Your task to perform on an android device: toggle javascript in the chrome app Image 0: 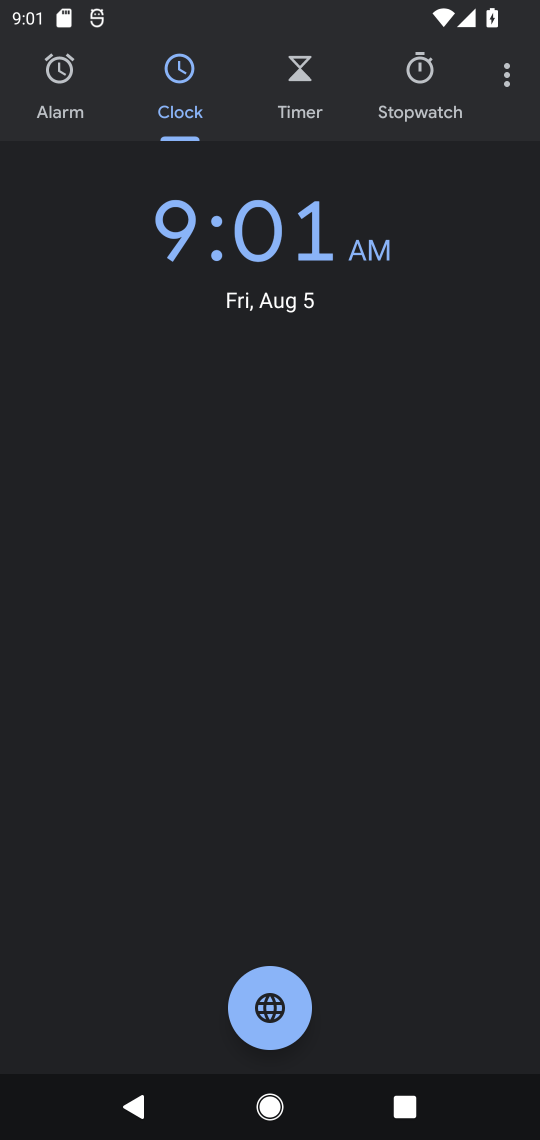
Step 0: press home button
Your task to perform on an android device: toggle javascript in the chrome app Image 1: 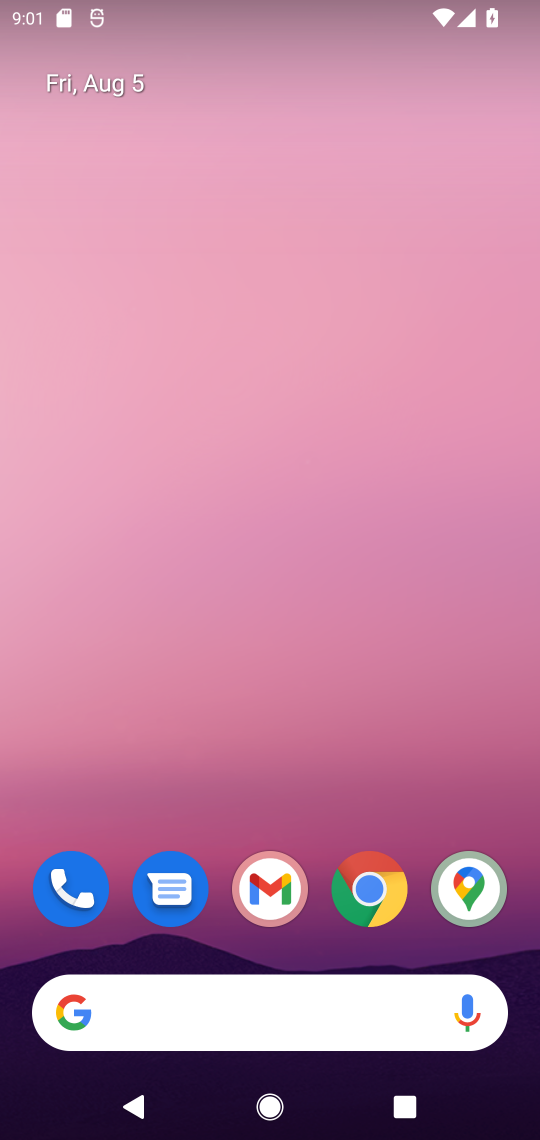
Step 1: drag from (133, 767) to (238, 176)
Your task to perform on an android device: toggle javascript in the chrome app Image 2: 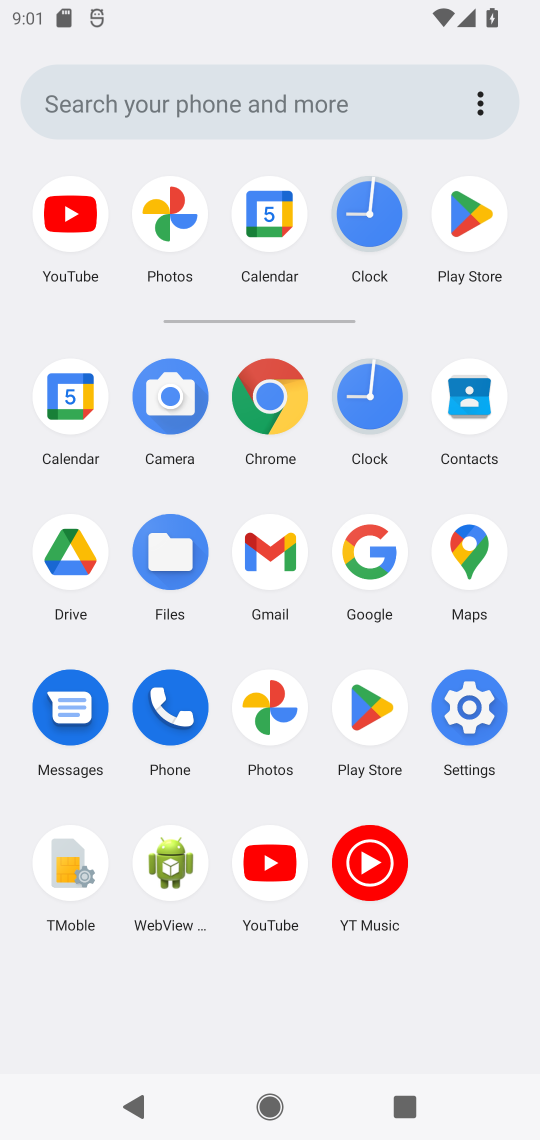
Step 2: click (255, 415)
Your task to perform on an android device: toggle javascript in the chrome app Image 3: 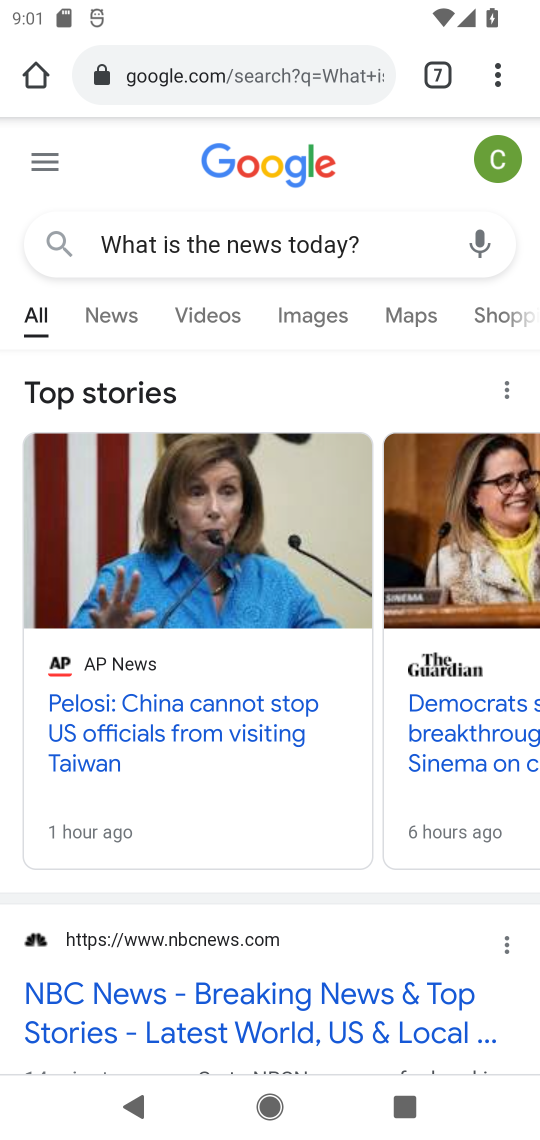
Step 3: click (508, 76)
Your task to perform on an android device: toggle javascript in the chrome app Image 4: 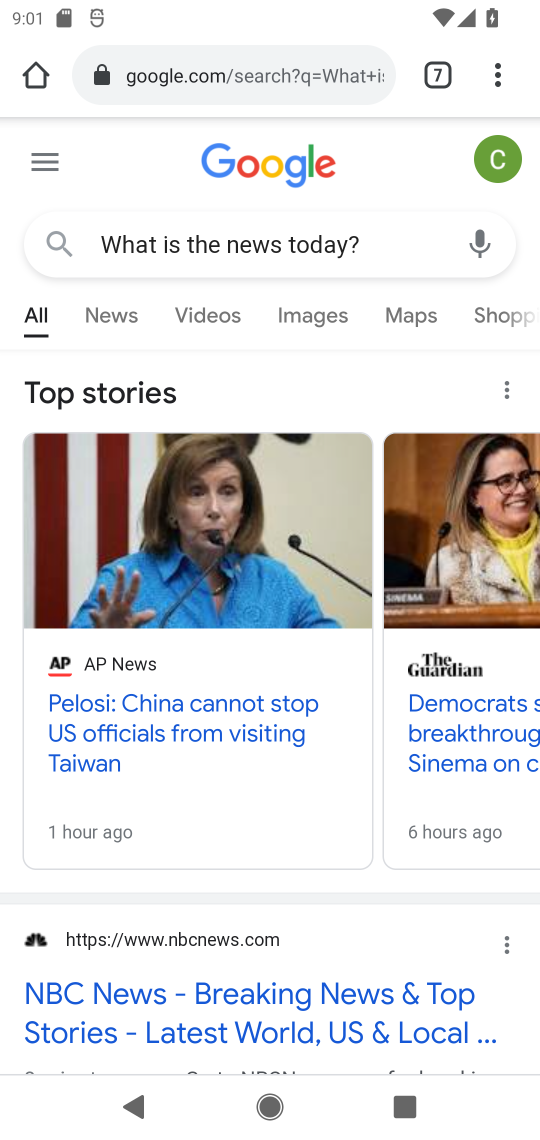
Step 4: click (489, 78)
Your task to perform on an android device: toggle javascript in the chrome app Image 5: 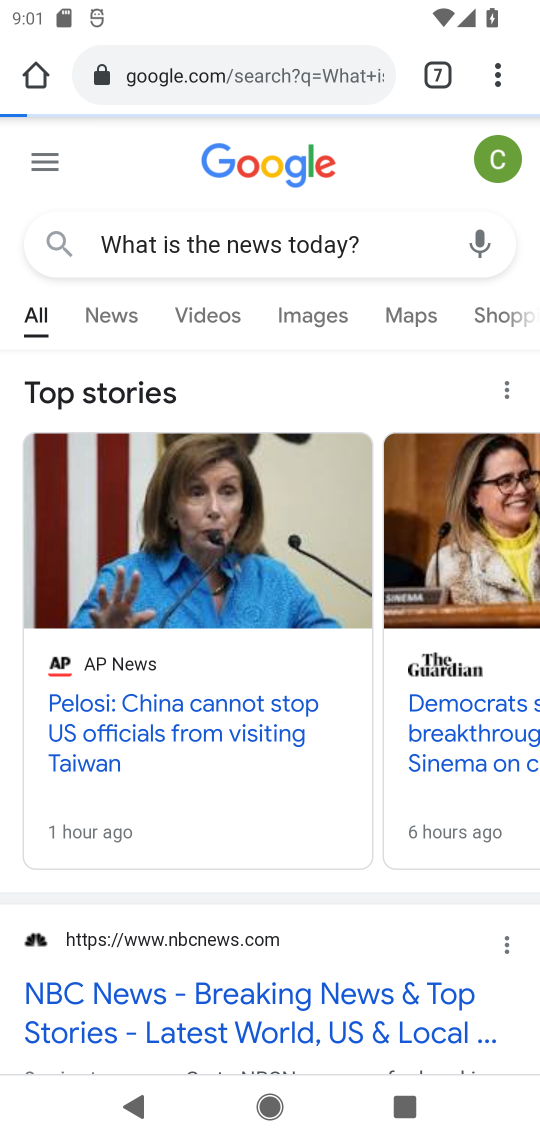
Step 5: click (489, 78)
Your task to perform on an android device: toggle javascript in the chrome app Image 6: 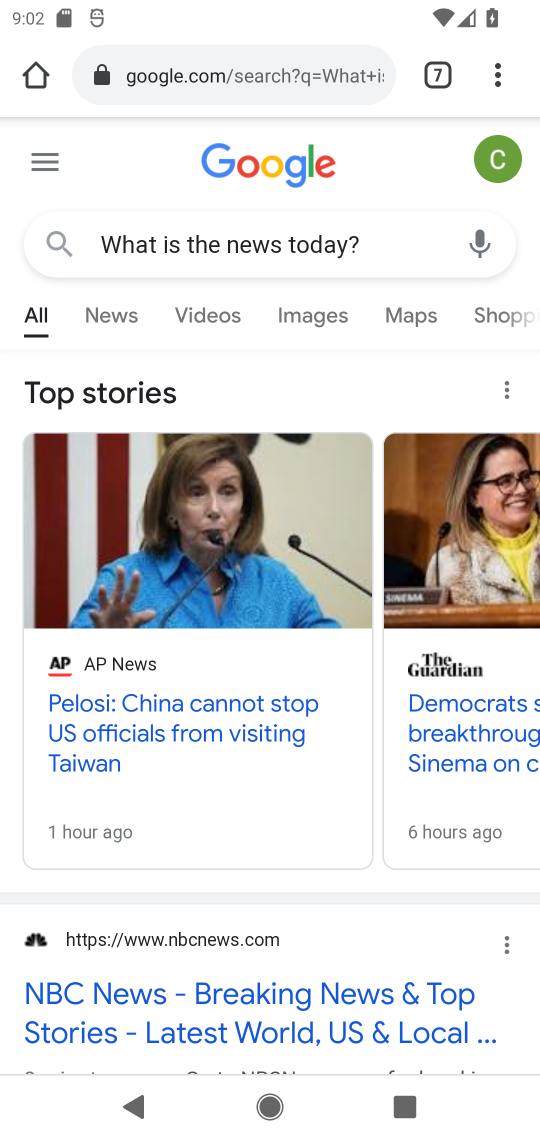
Step 6: click (500, 70)
Your task to perform on an android device: toggle javascript in the chrome app Image 7: 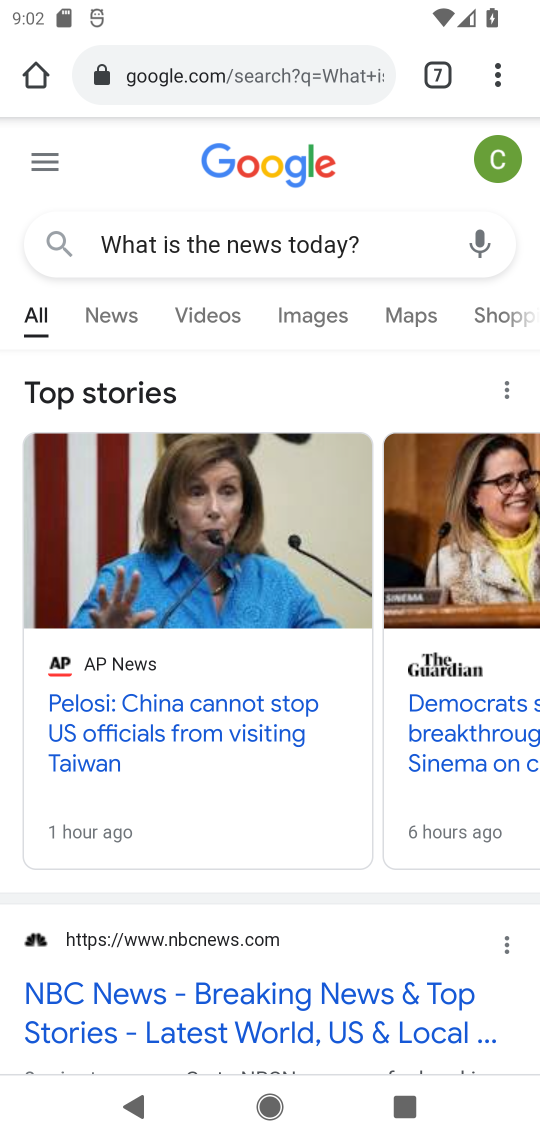
Step 7: click (500, 70)
Your task to perform on an android device: toggle javascript in the chrome app Image 8: 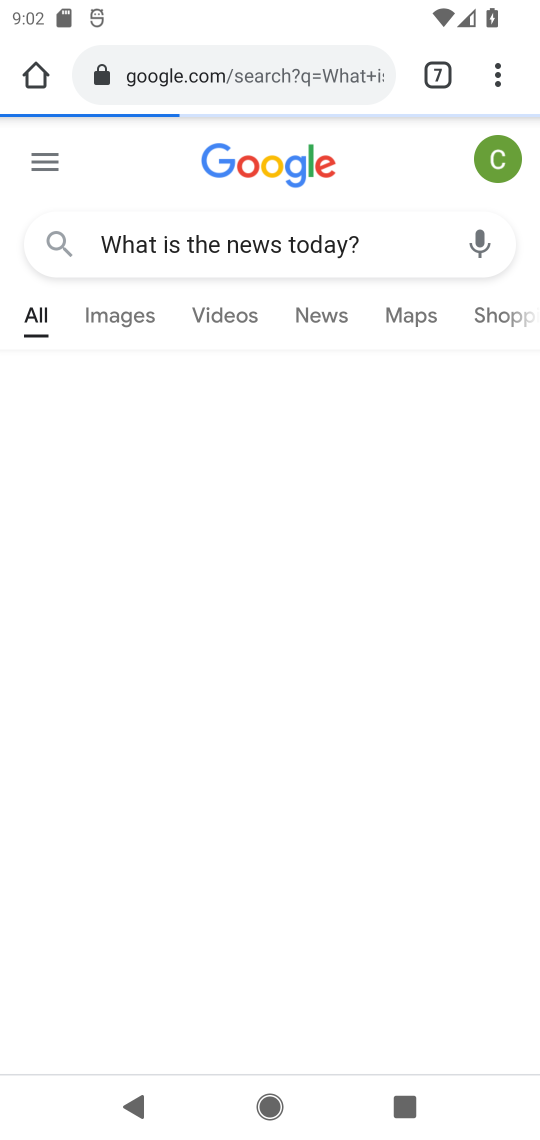
Step 8: click (500, 70)
Your task to perform on an android device: toggle javascript in the chrome app Image 9: 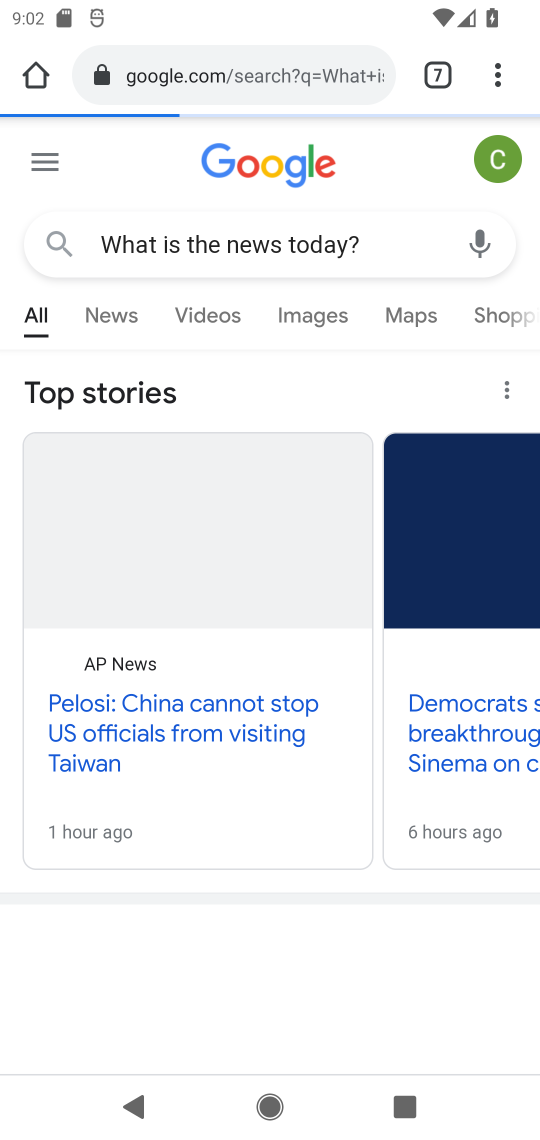
Step 9: click (487, 67)
Your task to perform on an android device: toggle javascript in the chrome app Image 10: 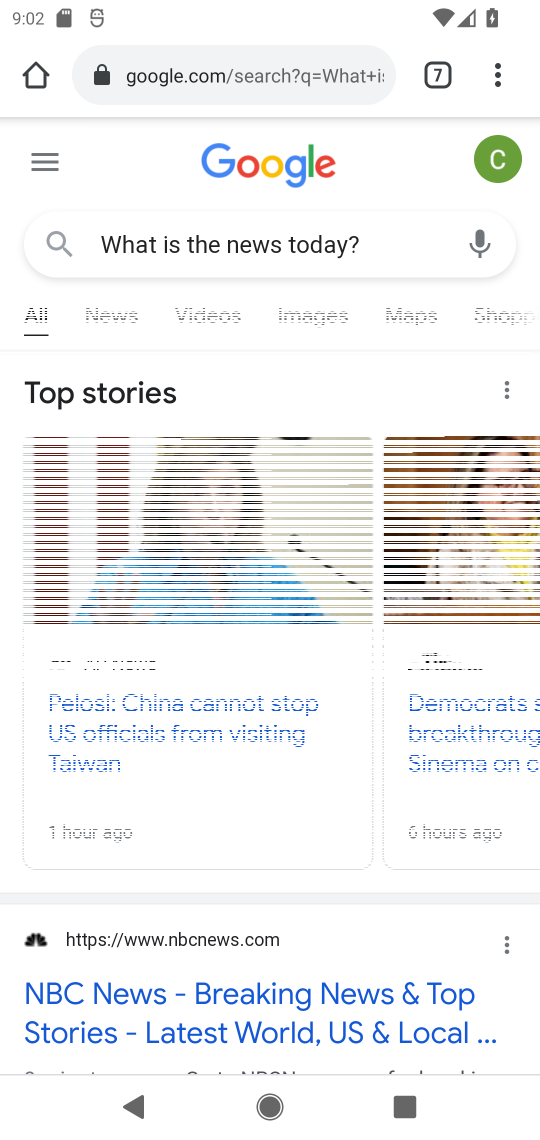
Step 10: click (487, 67)
Your task to perform on an android device: toggle javascript in the chrome app Image 11: 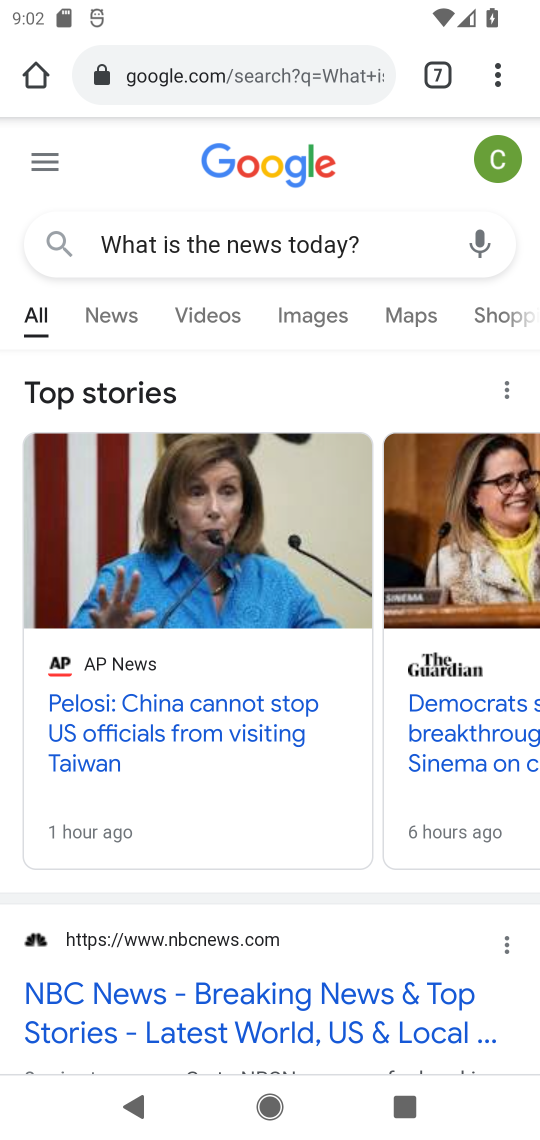
Step 11: click (496, 73)
Your task to perform on an android device: toggle javascript in the chrome app Image 12: 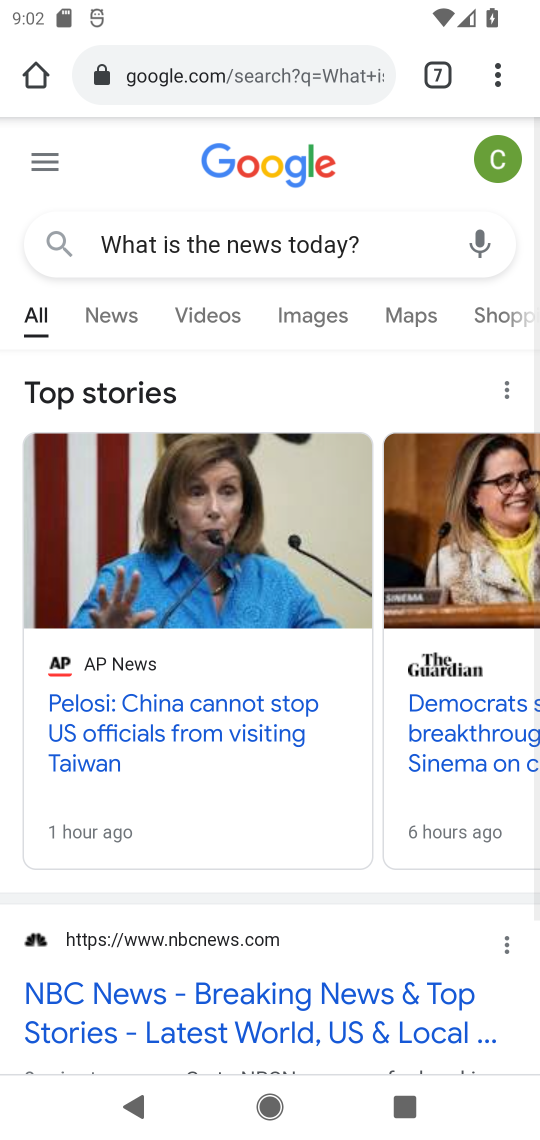
Step 12: click (502, 74)
Your task to perform on an android device: toggle javascript in the chrome app Image 13: 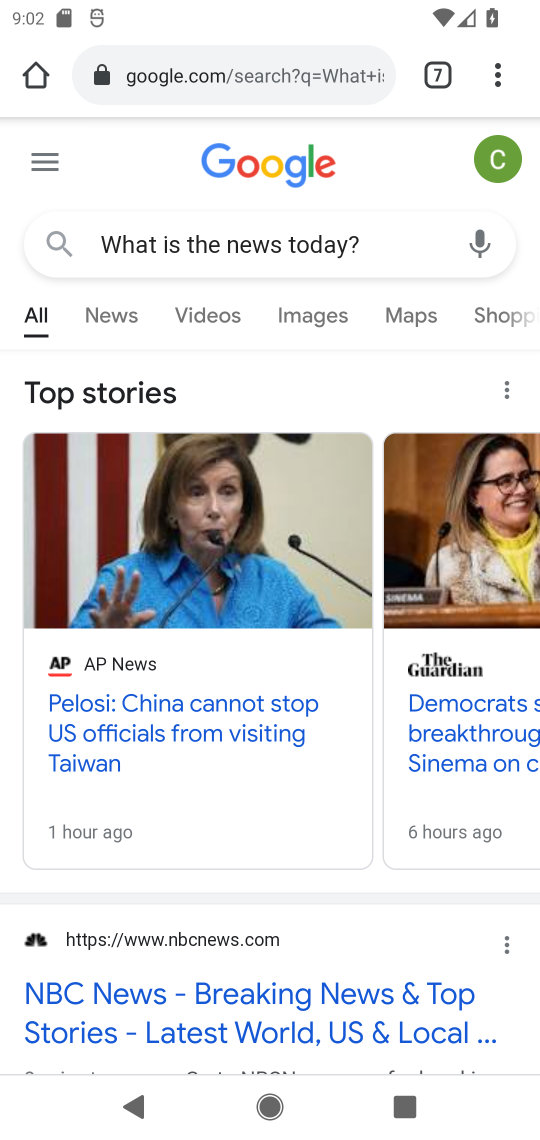
Step 13: click (520, 65)
Your task to perform on an android device: toggle javascript in the chrome app Image 14: 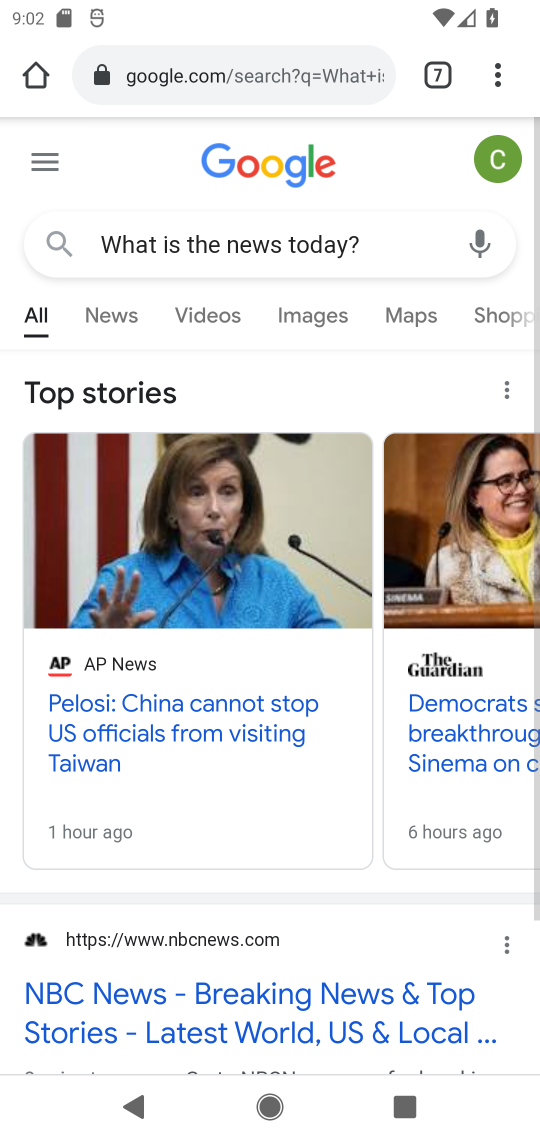
Step 14: click (520, 65)
Your task to perform on an android device: toggle javascript in the chrome app Image 15: 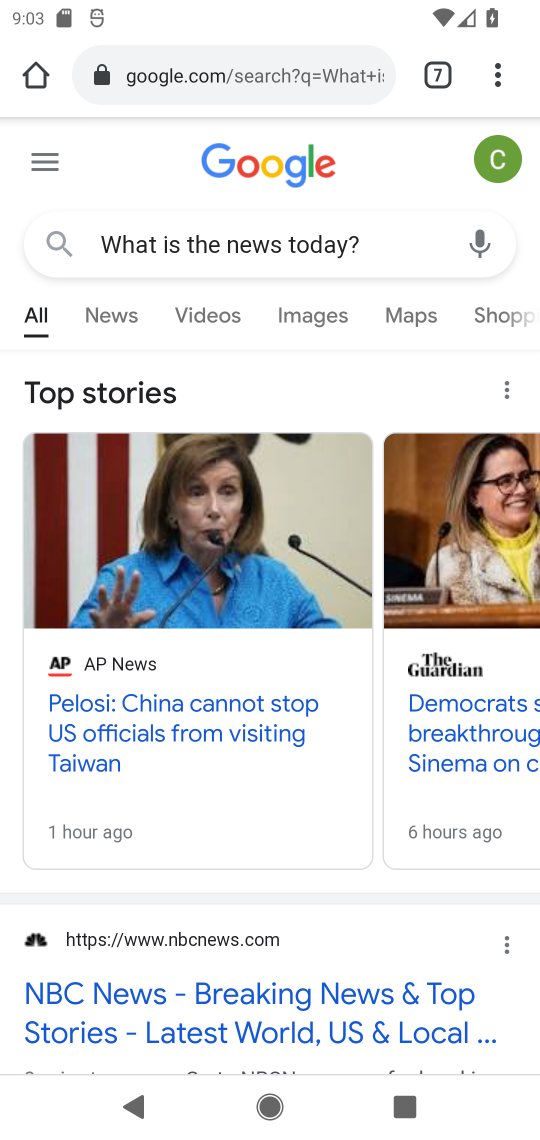
Step 15: click (520, 65)
Your task to perform on an android device: toggle javascript in the chrome app Image 16: 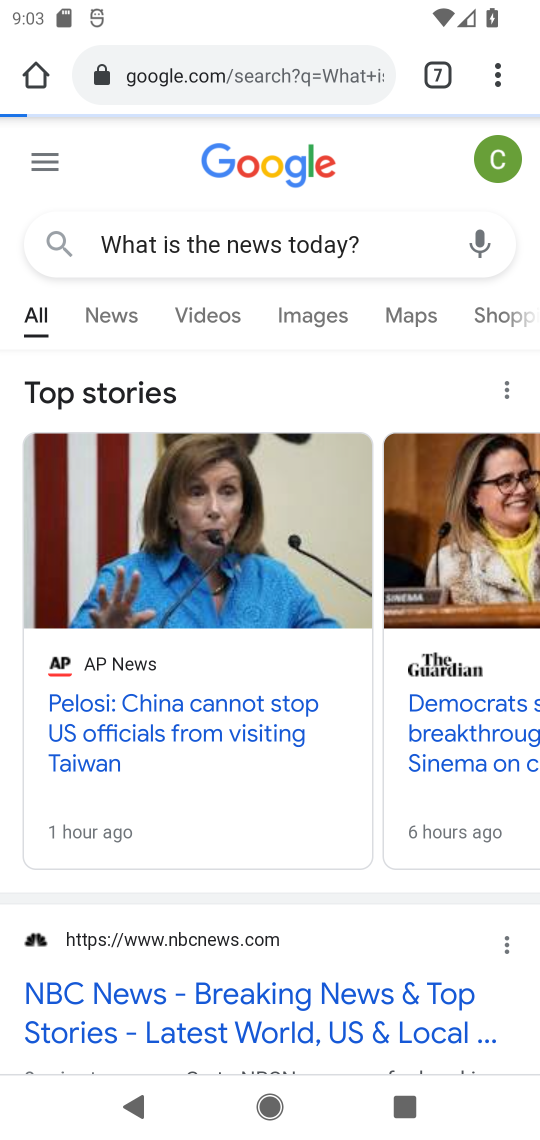
Step 16: click (502, 76)
Your task to perform on an android device: toggle javascript in the chrome app Image 17: 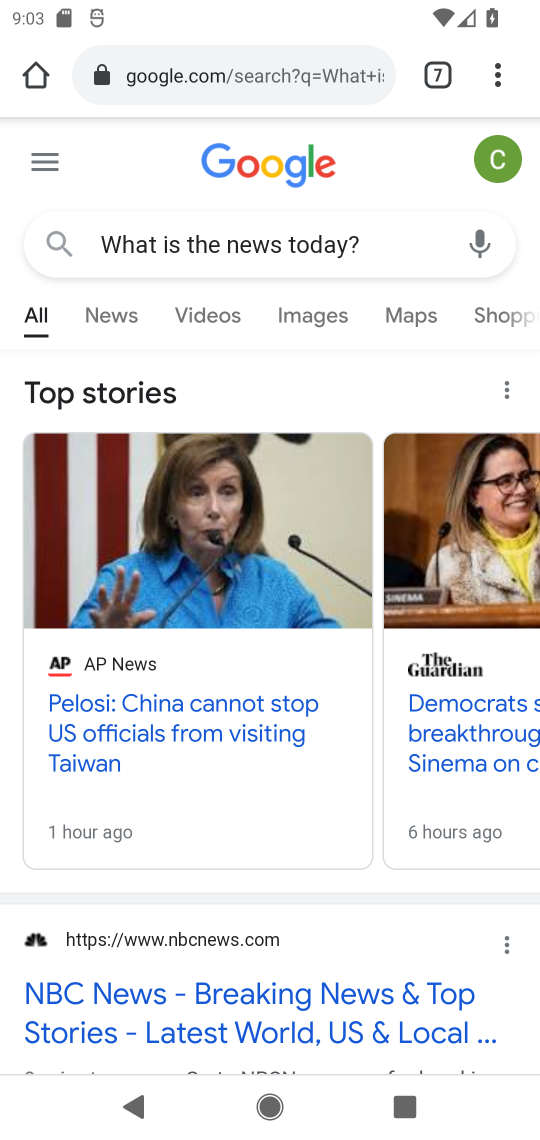
Step 17: click (502, 76)
Your task to perform on an android device: toggle javascript in the chrome app Image 18: 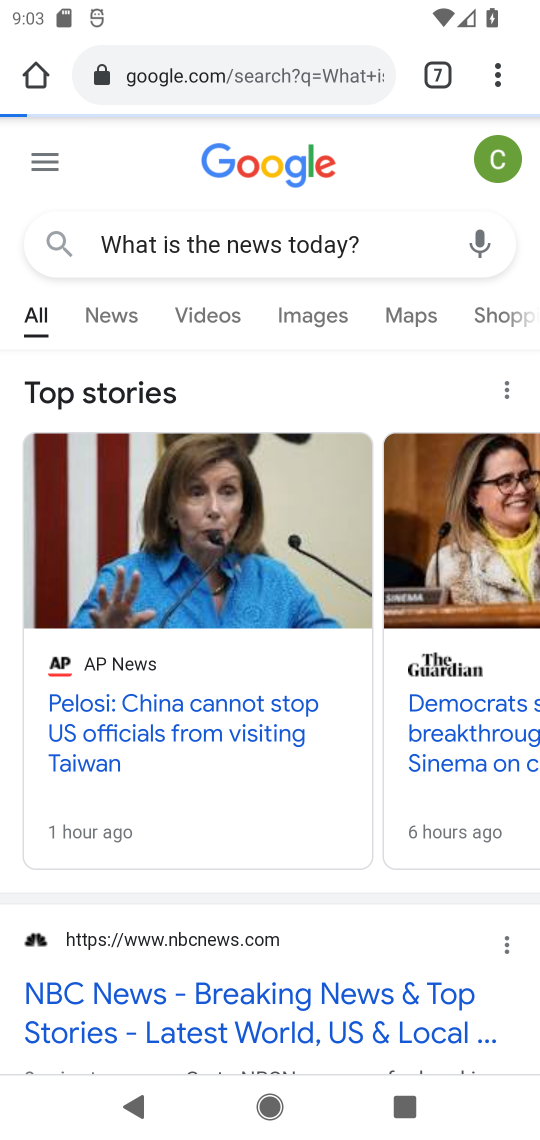
Step 18: click (499, 76)
Your task to perform on an android device: toggle javascript in the chrome app Image 19: 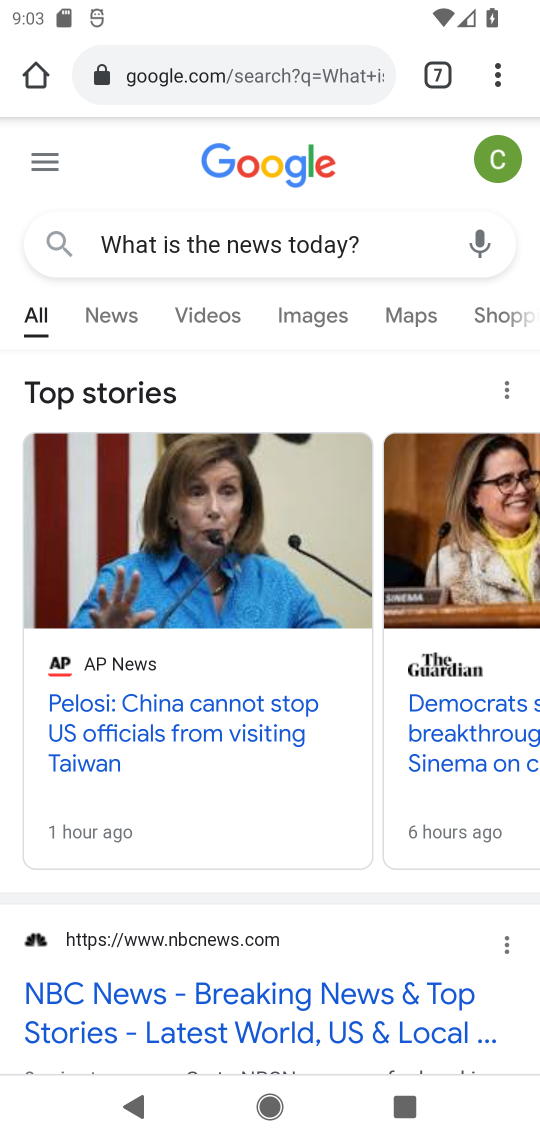
Step 19: click (499, 74)
Your task to perform on an android device: toggle javascript in the chrome app Image 20: 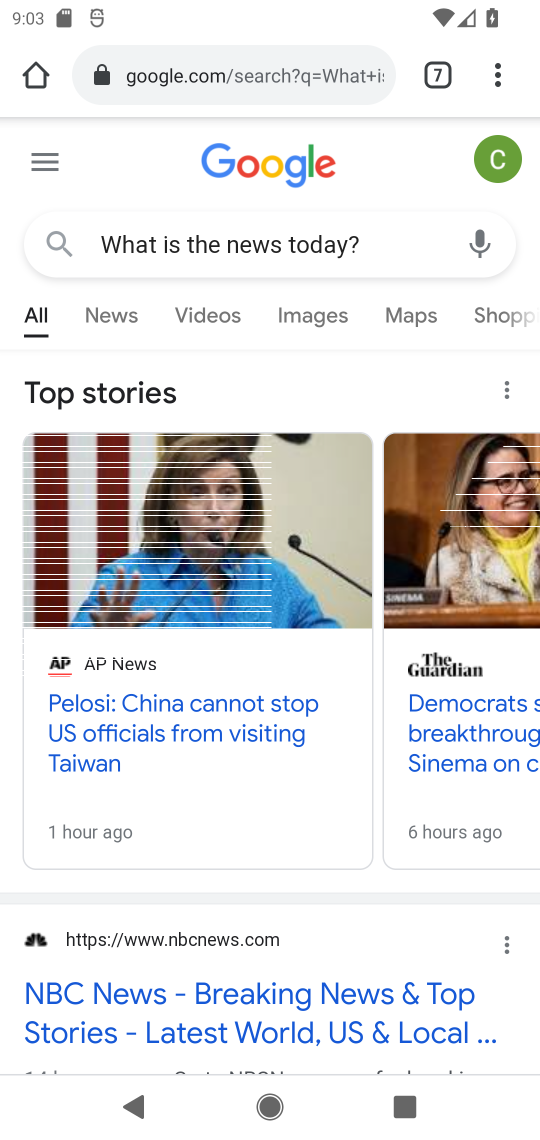
Step 20: task complete